Your task to perform on an android device: choose inbox layout in the gmail app Image 0: 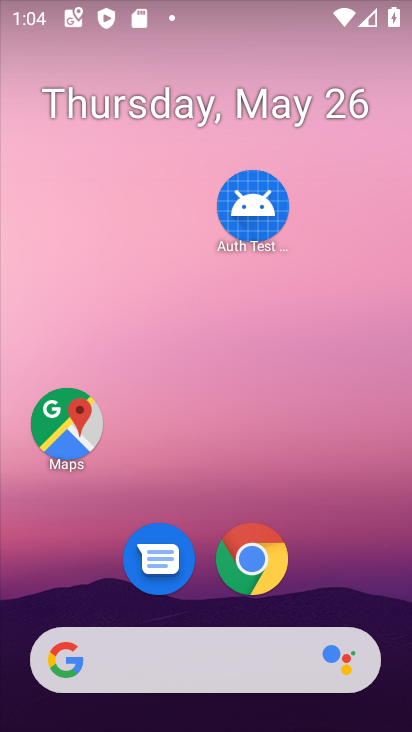
Step 0: drag from (352, 585) to (342, 231)
Your task to perform on an android device: choose inbox layout in the gmail app Image 1: 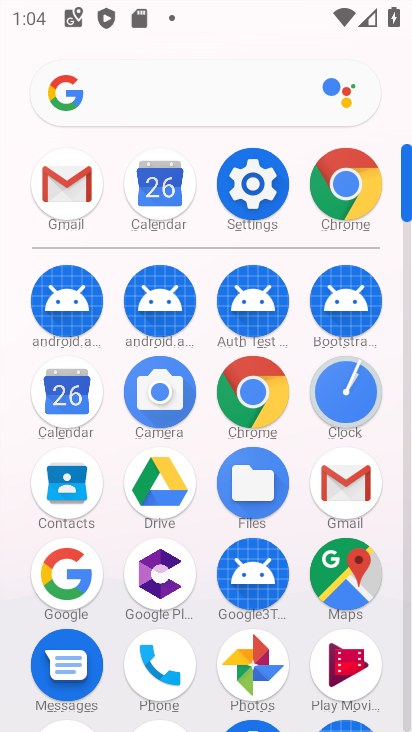
Step 1: click (338, 487)
Your task to perform on an android device: choose inbox layout in the gmail app Image 2: 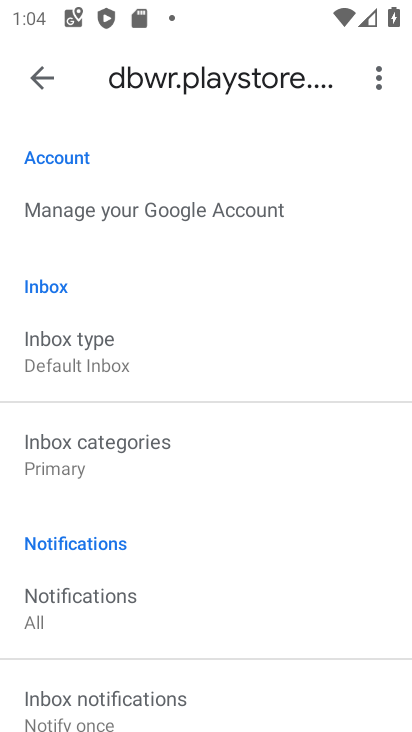
Step 2: click (159, 347)
Your task to perform on an android device: choose inbox layout in the gmail app Image 3: 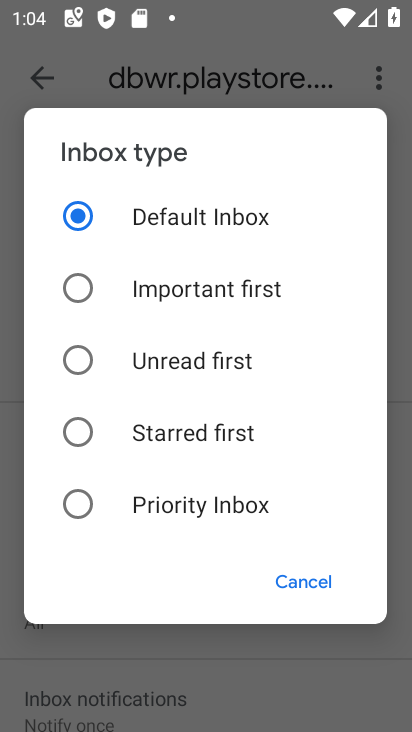
Step 3: click (151, 369)
Your task to perform on an android device: choose inbox layout in the gmail app Image 4: 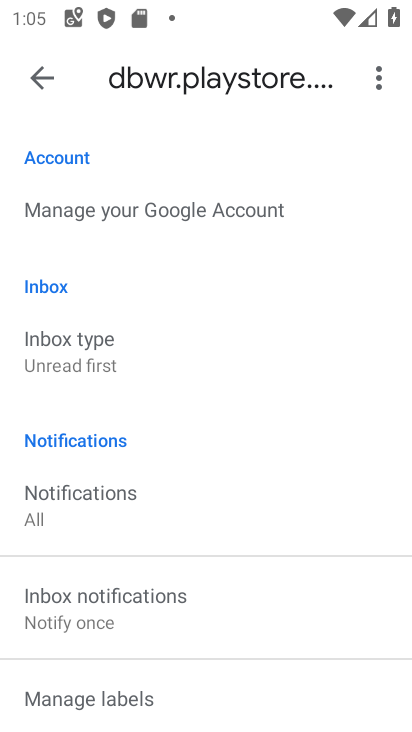
Step 4: task complete